Your task to perform on an android device: Open calendar and show me the second week of next month Image 0: 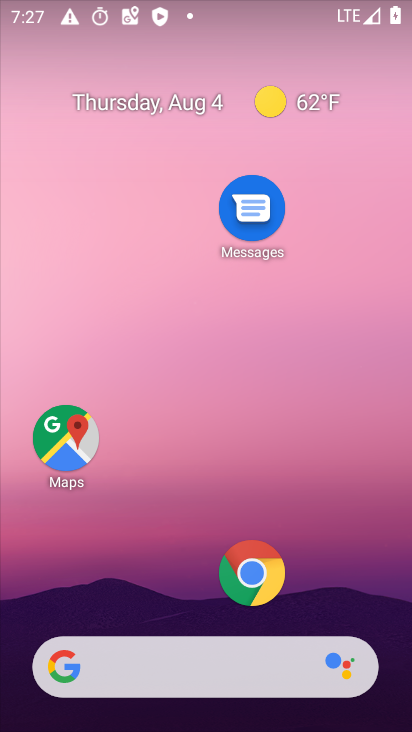
Step 0: press home button
Your task to perform on an android device: Open calendar and show me the second week of next month Image 1: 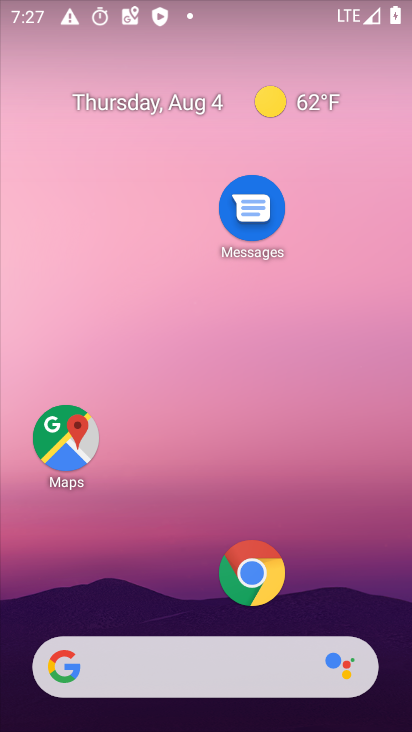
Step 1: drag from (195, 611) to (181, 211)
Your task to perform on an android device: Open calendar and show me the second week of next month Image 2: 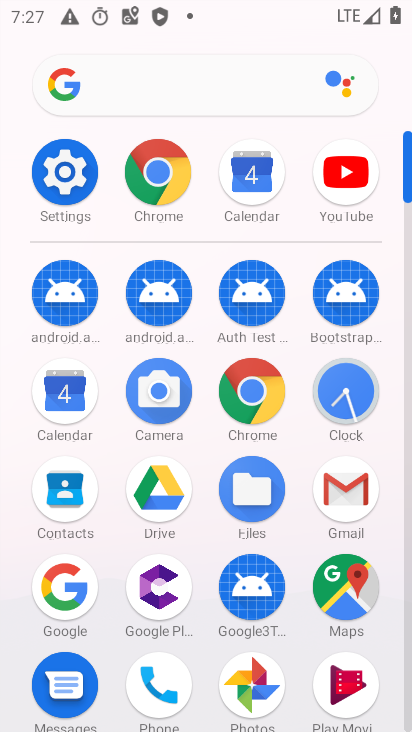
Step 2: click (45, 401)
Your task to perform on an android device: Open calendar and show me the second week of next month Image 3: 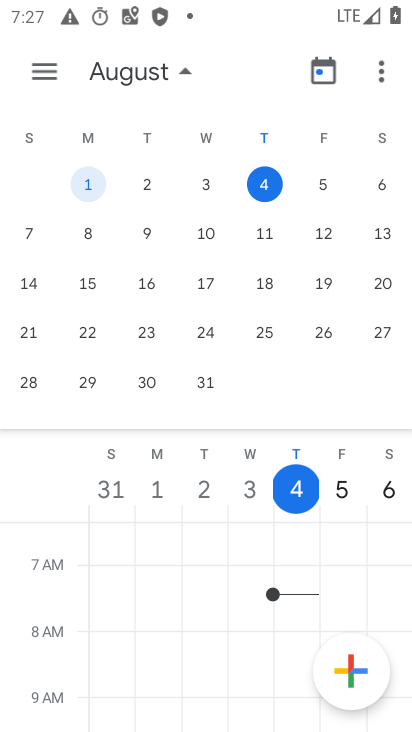
Step 3: drag from (317, 277) to (16, 236)
Your task to perform on an android device: Open calendar and show me the second week of next month Image 4: 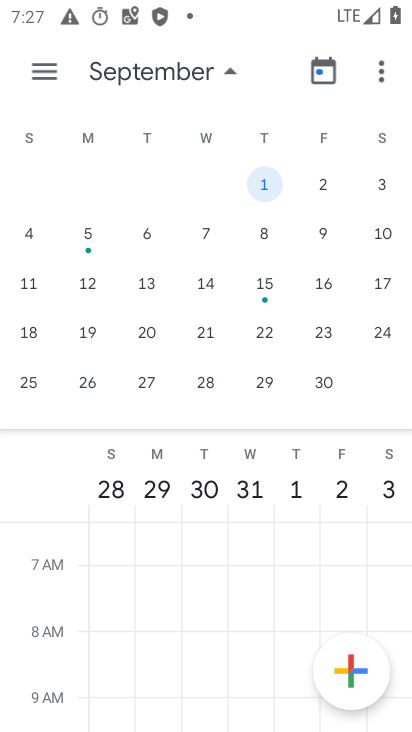
Step 4: click (29, 240)
Your task to perform on an android device: Open calendar and show me the second week of next month Image 5: 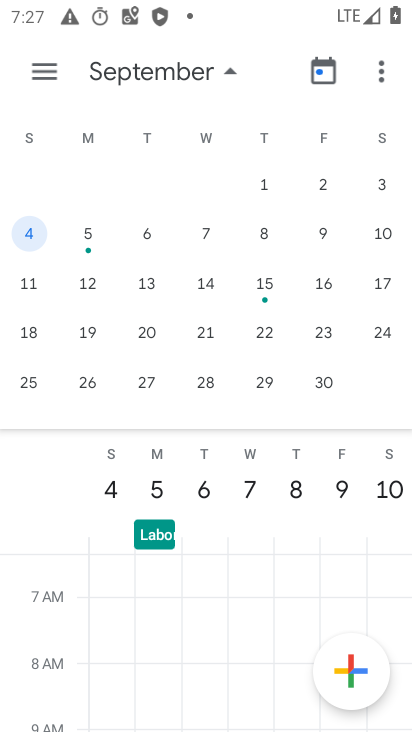
Step 5: click (98, 241)
Your task to perform on an android device: Open calendar and show me the second week of next month Image 6: 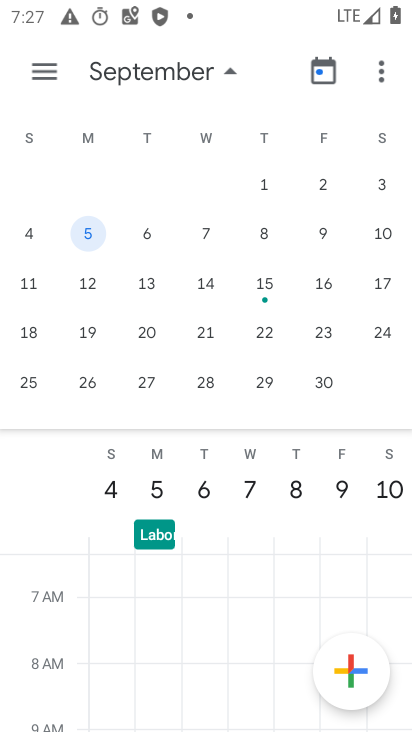
Step 6: click (154, 235)
Your task to perform on an android device: Open calendar and show me the second week of next month Image 7: 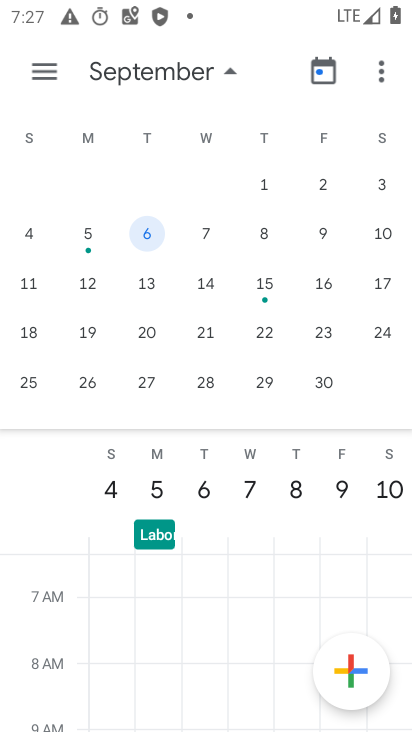
Step 7: click (210, 241)
Your task to perform on an android device: Open calendar and show me the second week of next month Image 8: 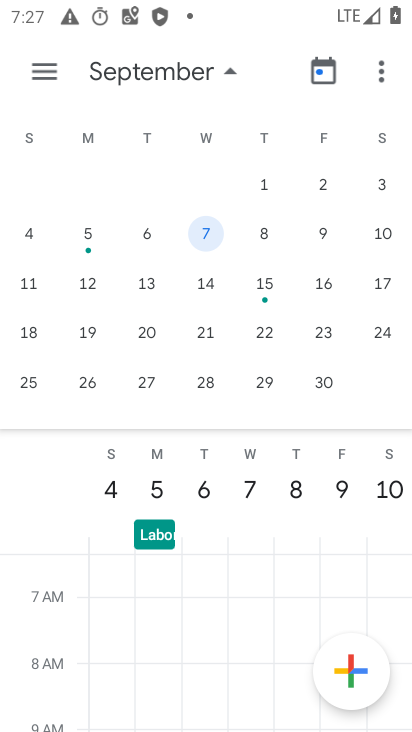
Step 8: click (266, 239)
Your task to perform on an android device: Open calendar and show me the second week of next month Image 9: 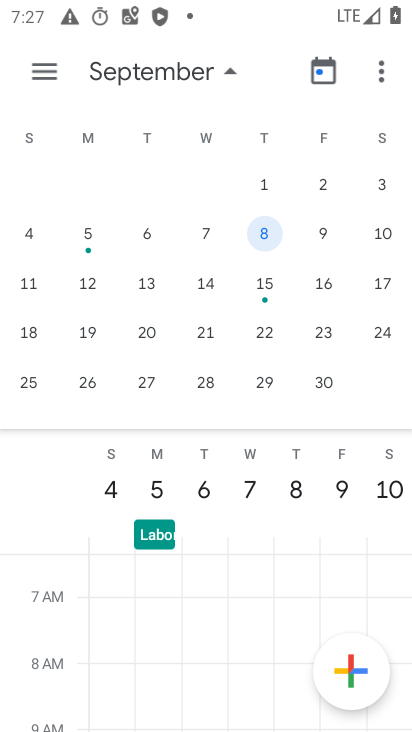
Step 9: click (326, 234)
Your task to perform on an android device: Open calendar and show me the second week of next month Image 10: 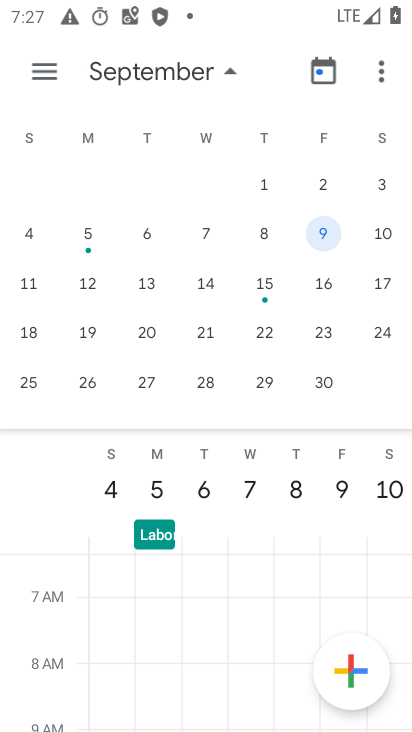
Step 10: click (385, 235)
Your task to perform on an android device: Open calendar and show me the second week of next month Image 11: 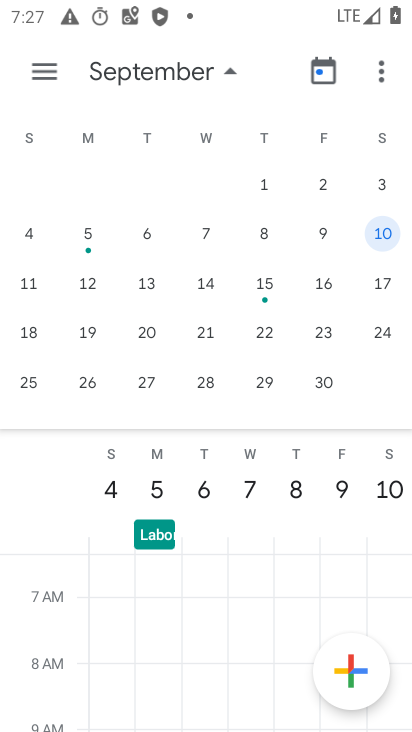
Step 11: task complete